Your task to perform on an android device: Open the phone app and click the voicemail tab. Image 0: 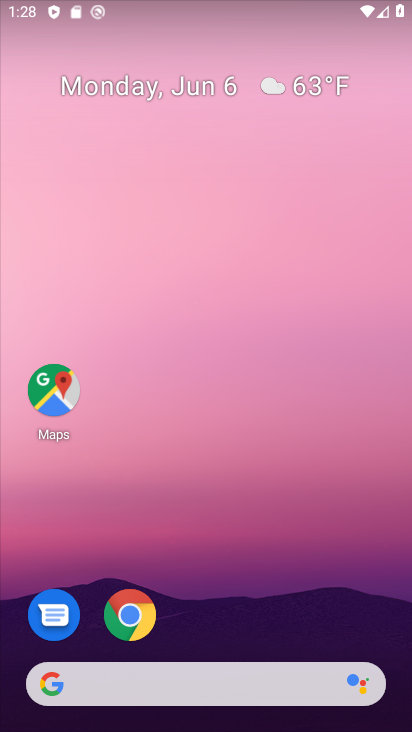
Step 0: drag from (257, 653) to (346, 204)
Your task to perform on an android device: Open the phone app and click the voicemail tab. Image 1: 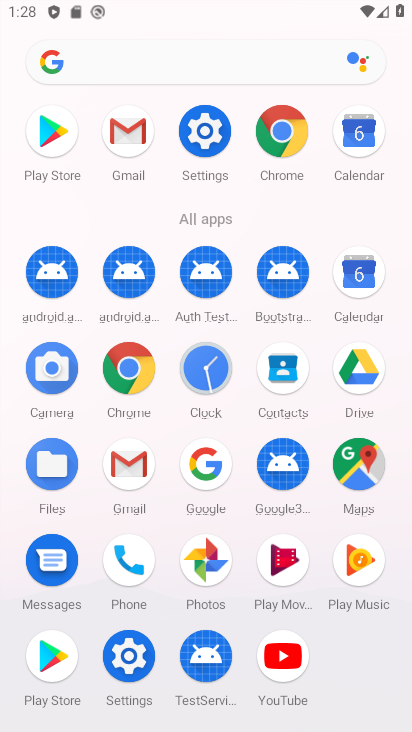
Step 1: click (127, 563)
Your task to perform on an android device: Open the phone app and click the voicemail tab. Image 2: 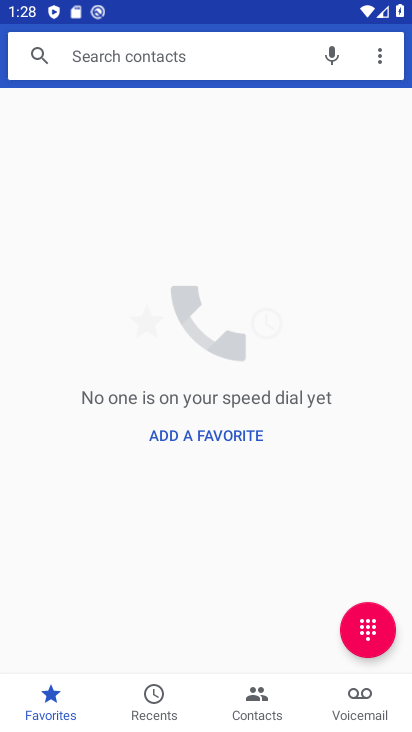
Step 2: click (352, 693)
Your task to perform on an android device: Open the phone app and click the voicemail tab. Image 3: 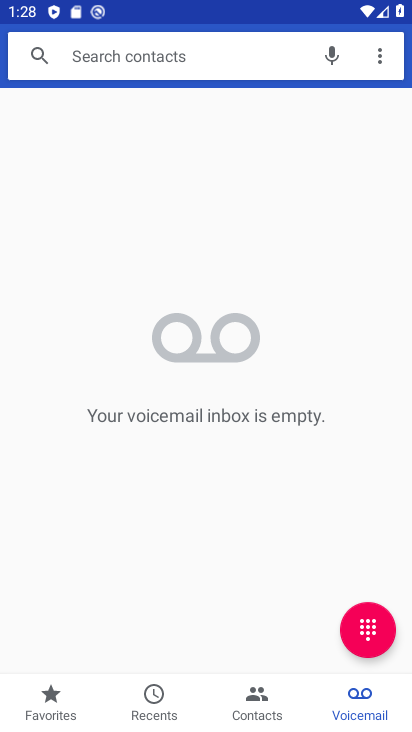
Step 3: task complete